Your task to perform on an android device: Search for "logitech g903" on costco.com, select the first entry, and add it to the cart. Image 0: 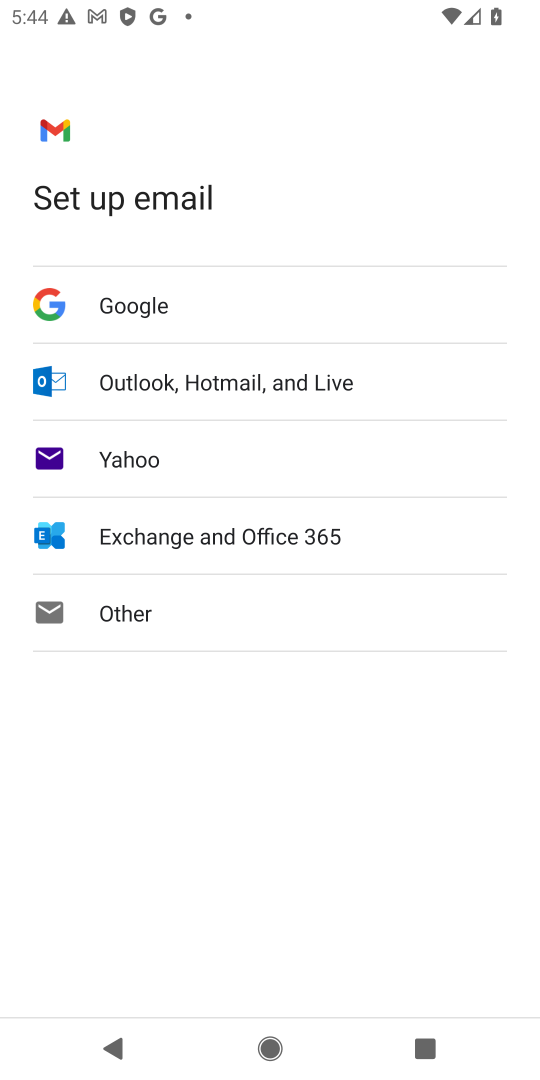
Step 0: press home button
Your task to perform on an android device: Search for "logitech g903" on costco.com, select the first entry, and add it to the cart. Image 1: 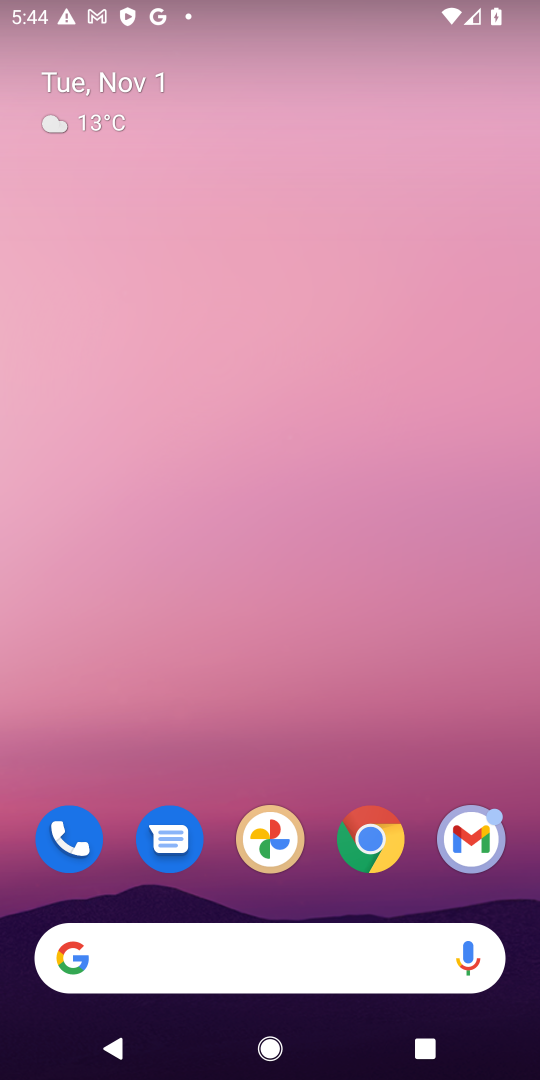
Step 1: drag from (338, 898) to (340, 87)
Your task to perform on an android device: Search for "logitech g903" on costco.com, select the first entry, and add it to the cart. Image 2: 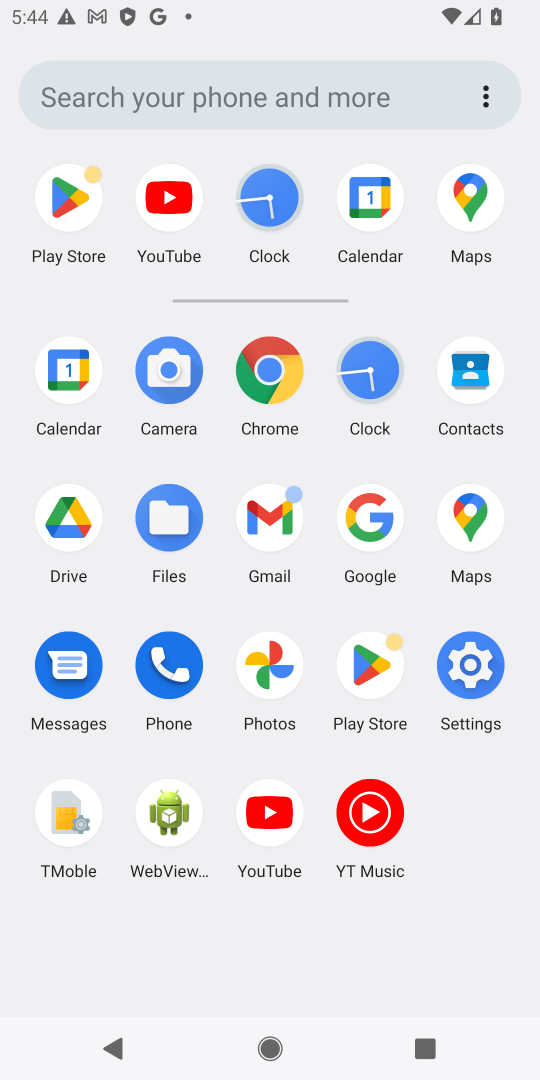
Step 2: click (268, 372)
Your task to perform on an android device: Search for "logitech g903" on costco.com, select the first entry, and add it to the cart. Image 3: 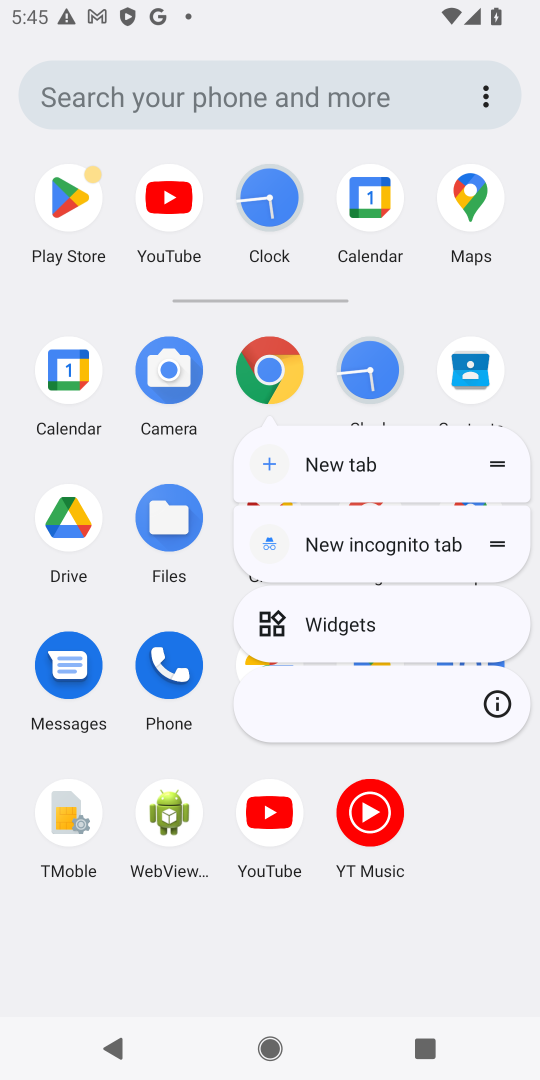
Step 3: click (273, 359)
Your task to perform on an android device: Search for "logitech g903" on costco.com, select the first entry, and add it to the cart. Image 4: 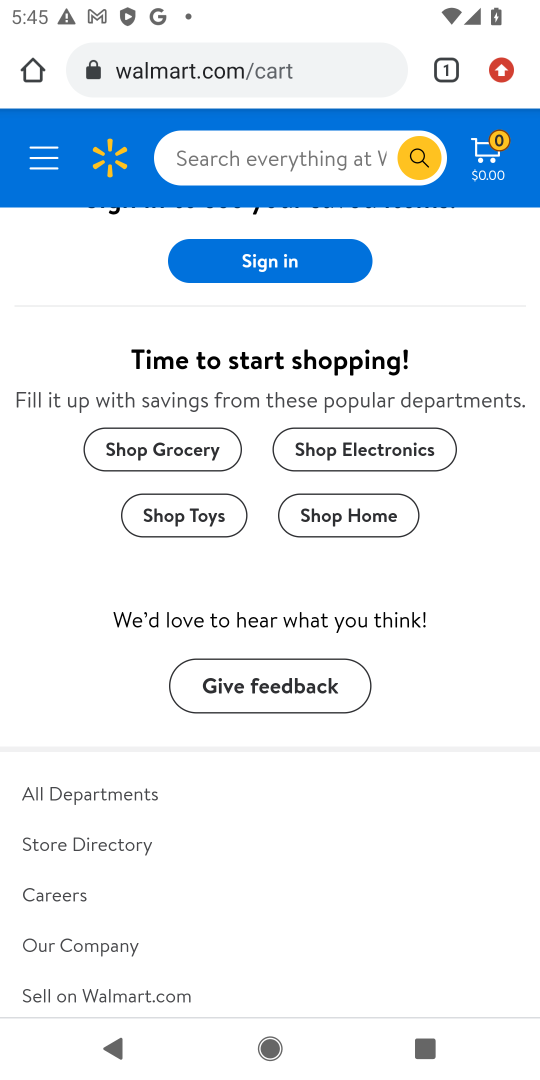
Step 4: click (225, 71)
Your task to perform on an android device: Search for "logitech g903" on costco.com, select the first entry, and add it to the cart. Image 5: 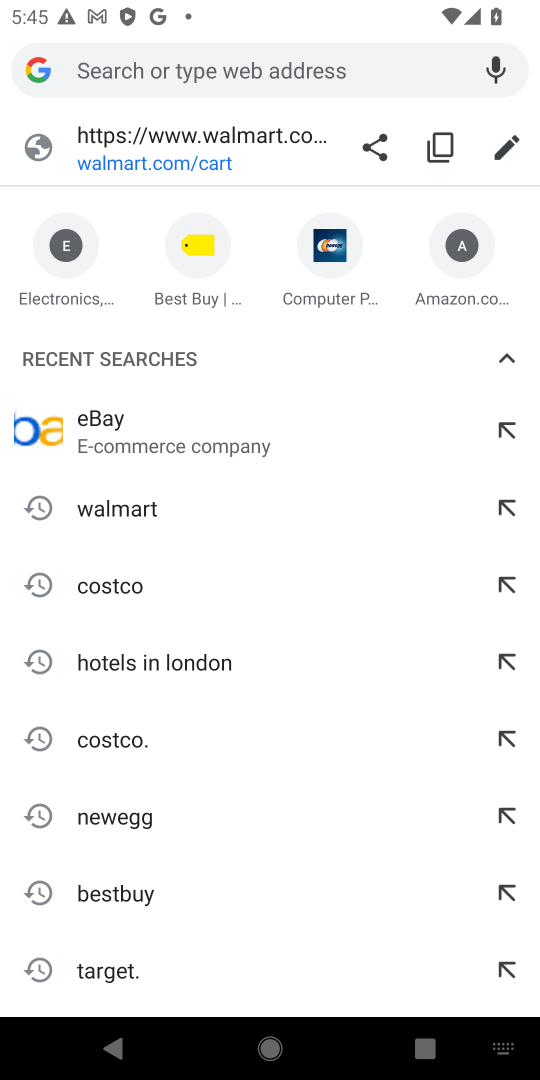
Step 5: type "costco.com"
Your task to perform on an android device: Search for "logitech g903" on costco.com, select the first entry, and add it to the cart. Image 6: 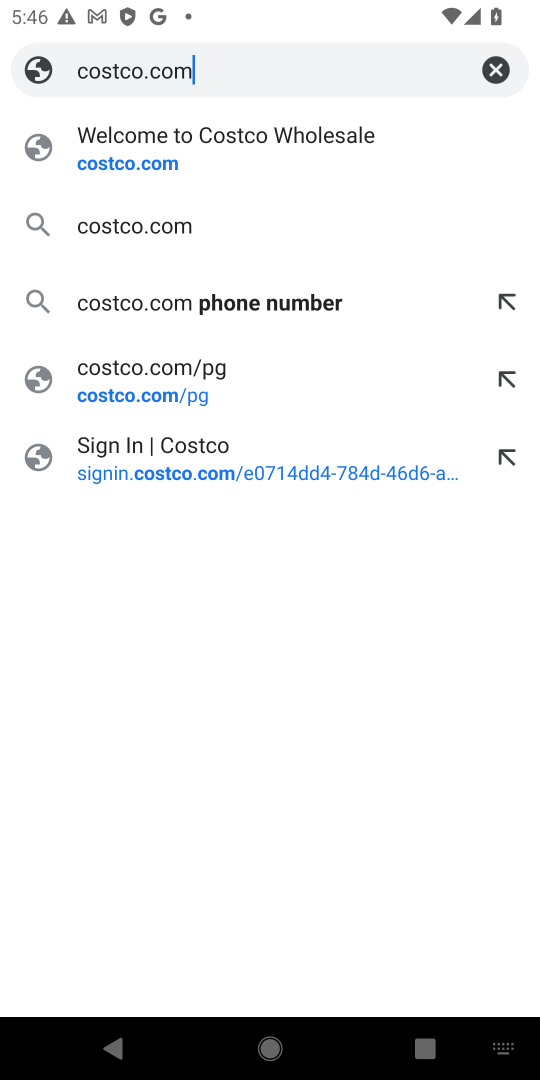
Step 6: press enter
Your task to perform on an android device: Search for "logitech g903" on costco.com, select the first entry, and add it to the cart. Image 7: 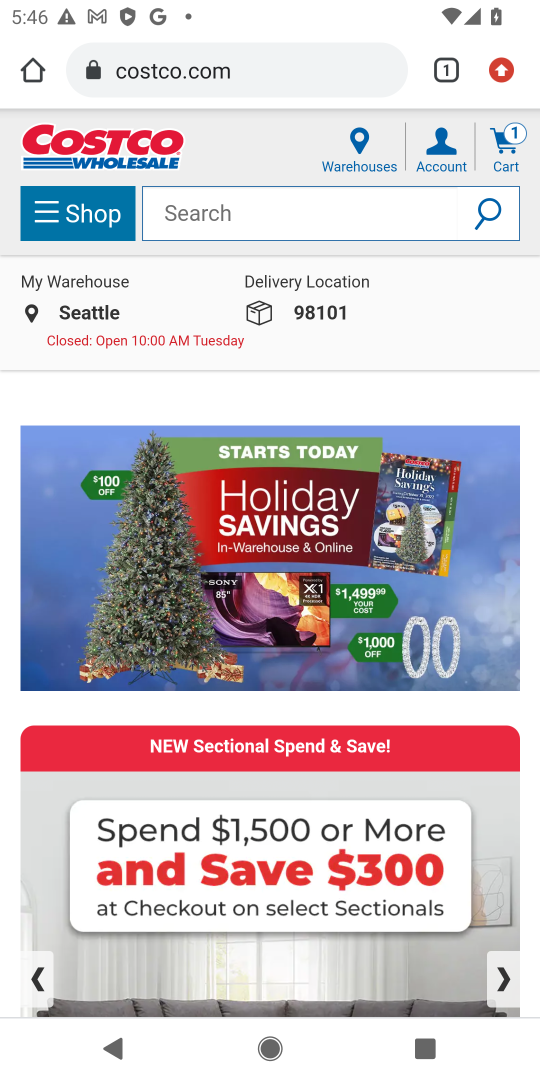
Step 7: click (346, 202)
Your task to perform on an android device: Search for "logitech g903" on costco.com, select the first entry, and add it to the cart. Image 8: 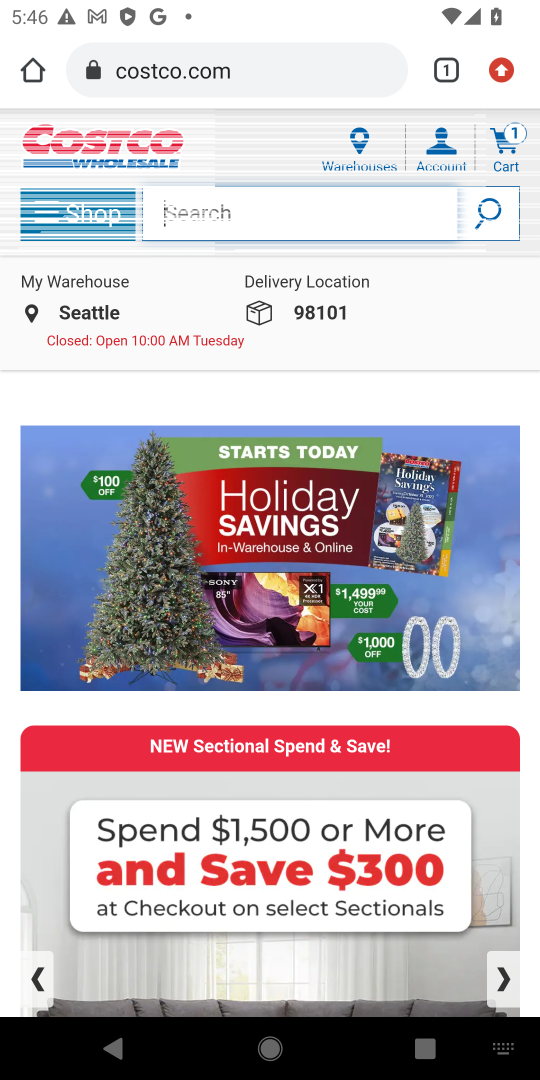
Step 8: type "logitech g903"
Your task to perform on an android device: Search for "logitech g903" on costco.com, select the first entry, and add it to the cart. Image 9: 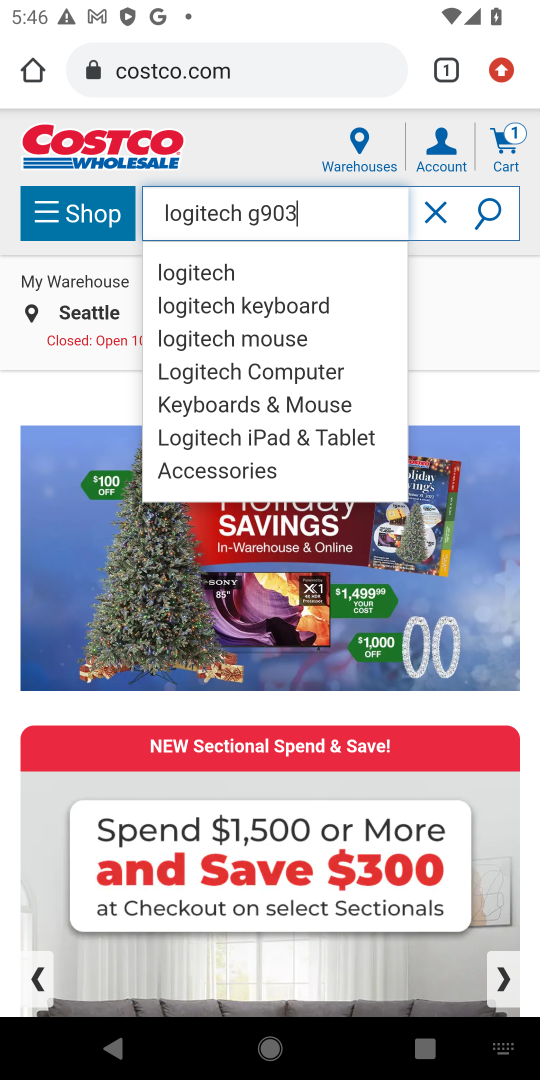
Step 9: press enter
Your task to perform on an android device: Search for "logitech g903" on costco.com, select the first entry, and add it to the cart. Image 10: 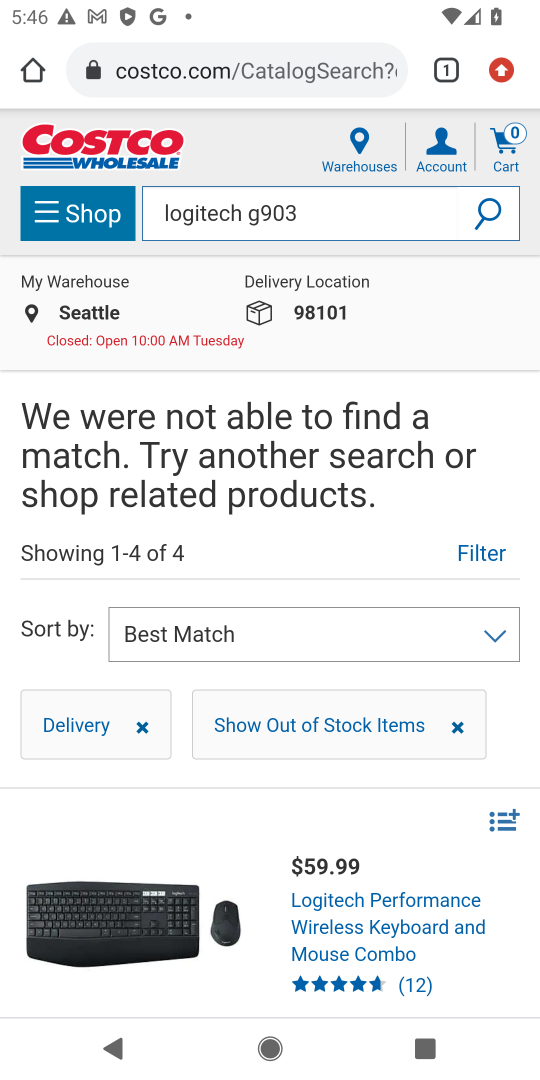
Step 10: task complete